Your task to perform on an android device: set default search engine in the chrome app Image 0: 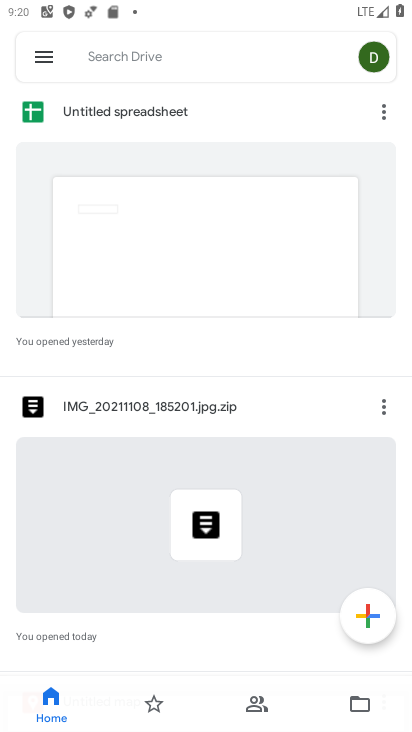
Step 0: press home button
Your task to perform on an android device: set default search engine in the chrome app Image 1: 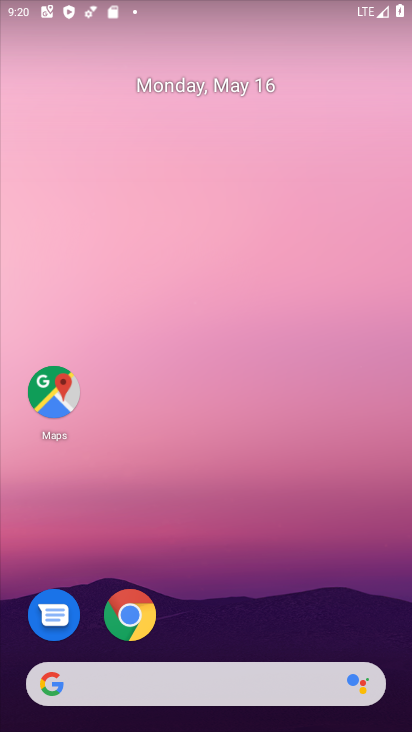
Step 1: click (133, 618)
Your task to perform on an android device: set default search engine in the chrome app Image 2: 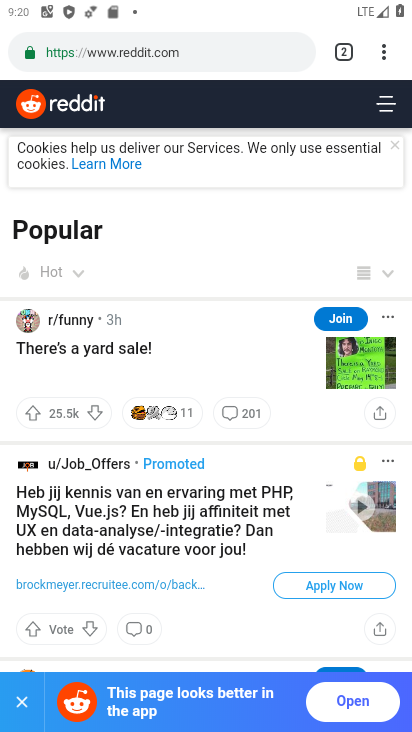
Step 2: click (386, 61)
Your task to perform on an android device: set default search engine in the chrome app Image 3: 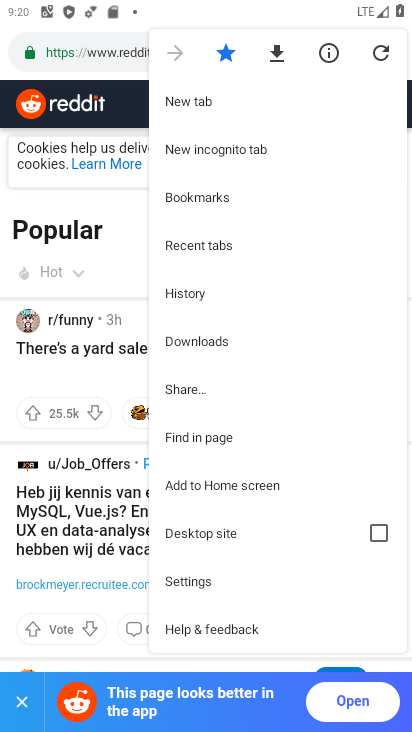
Step 3: click (200, 587)
Your task to perform on an android device: set default search engine in the chrome app Image 4: 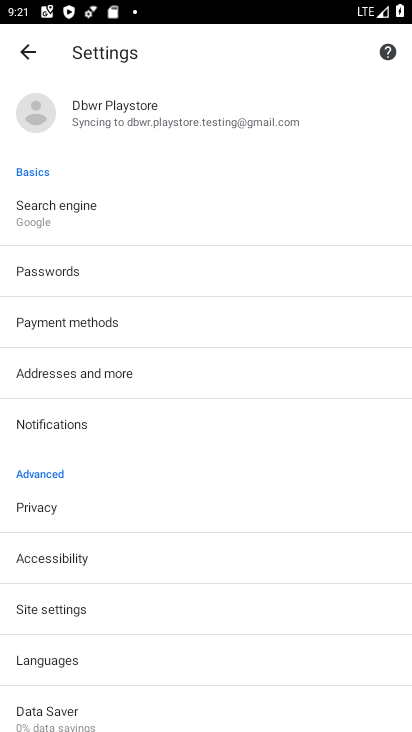
Step 4: click (87, 222)
Your task to perform on an android device: set default search engine in the chrome app Image 5: 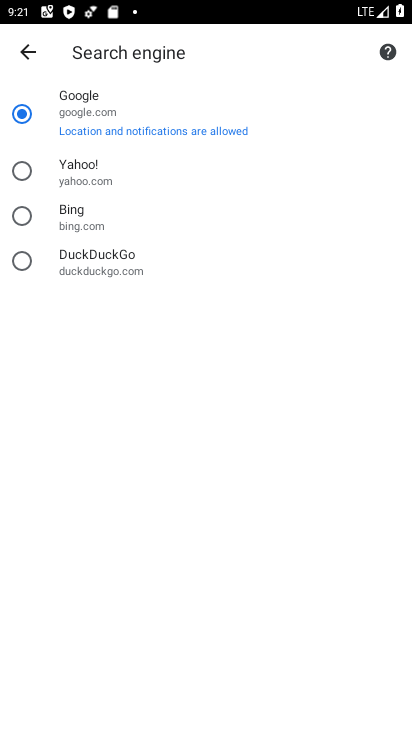
Step 5: task complete